Your task to perform on an android device: Set the phone to "Do not disturb". Image 0: 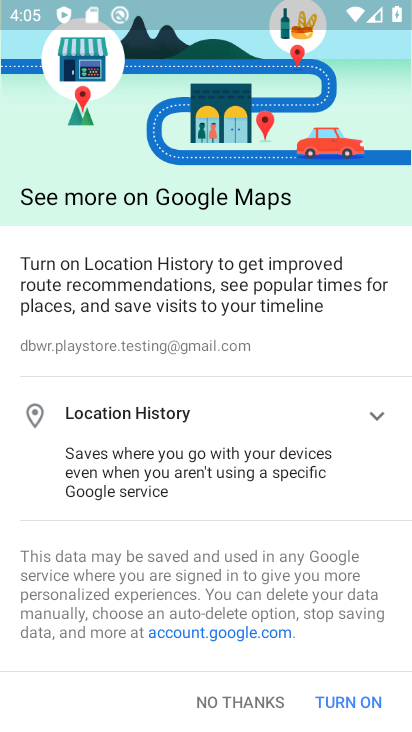
Step 0: click (352, 701)
Your task to perform on an android device: Set the phone to "Do not disturb". Image 1: 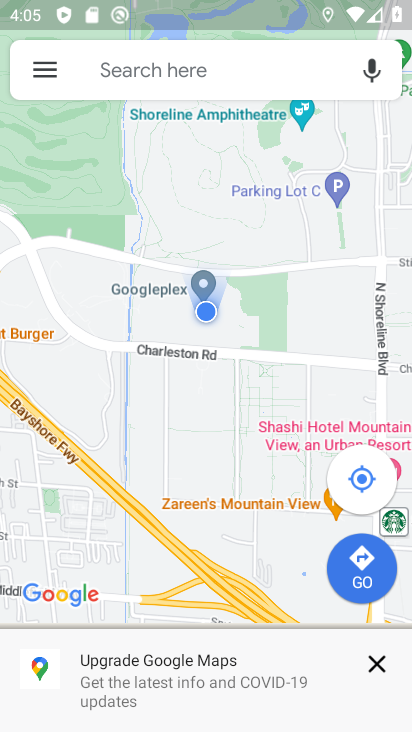
Step 1: press home button
Your task to perform on an android device: Set the phone to "Do not disturb". Image 2: 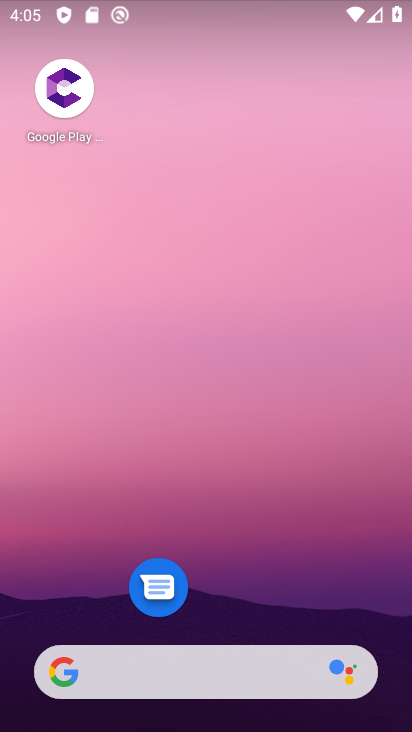
Step 2: drag from (220, 614) to (176, 145)
Your task to perform on an android device: Set the phone to "Do not disturb". Image 3: 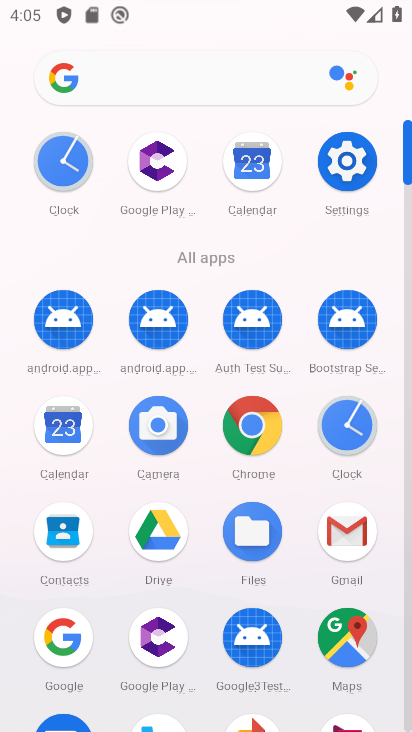
Step 3: click (312, 158)
Your task to perform on an android device: Set the phone to "Do not disturb". Image 4: 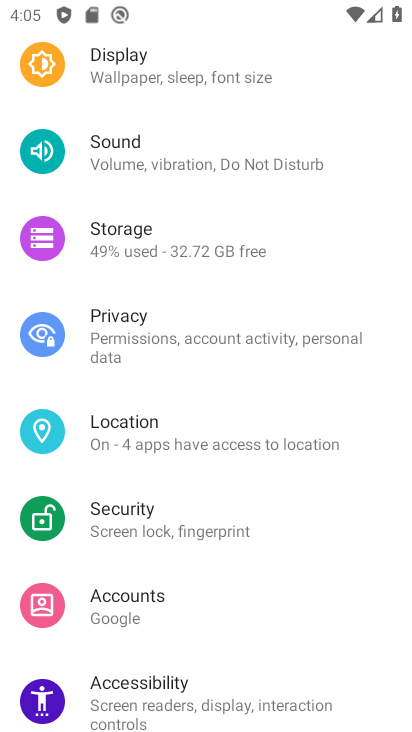
Step 4: click (169, 165)
Your task to perform on an android device: Set the phone to "Do not disturb". Image 5: 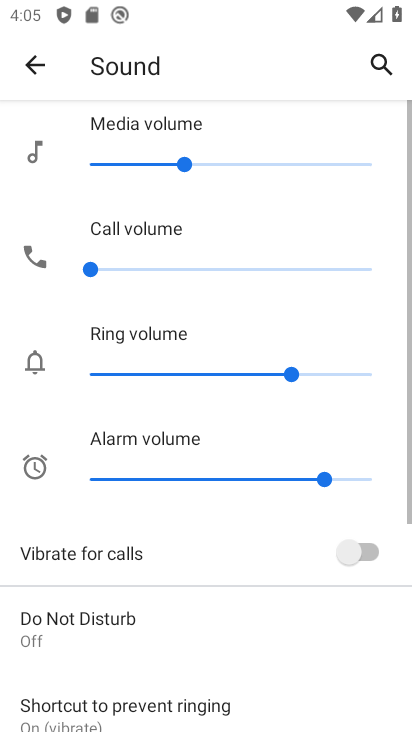
Step 5: drag from (188, 602) to (156, 193)
Your task to perform on an android device: Set the phone to "Do not disturb". Image 6: 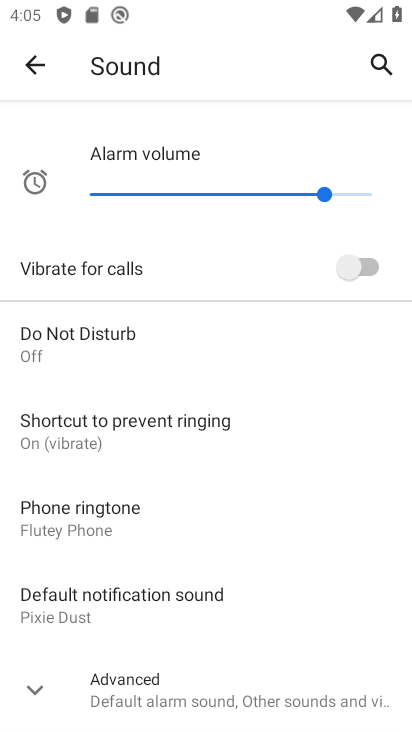
Step 6: click (121, 324)
Your task to perform on an android device: Set the phone to "Do not disturb". Image 7: 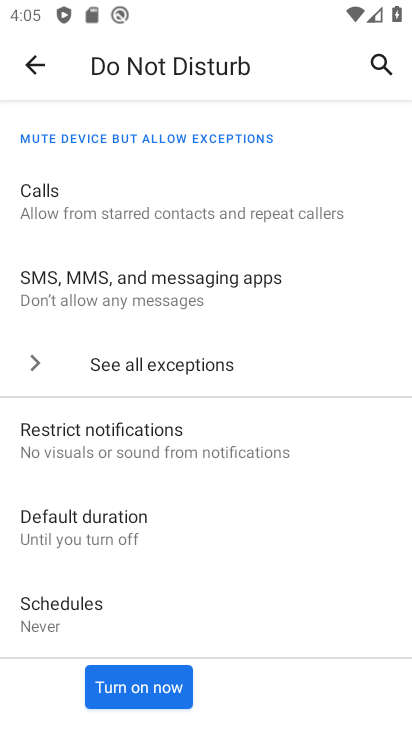
Step 7: drag from (241, 610) to (271, 370)
Your task to perform on an android device: Set the phone to "Do not disturb". Image 8: 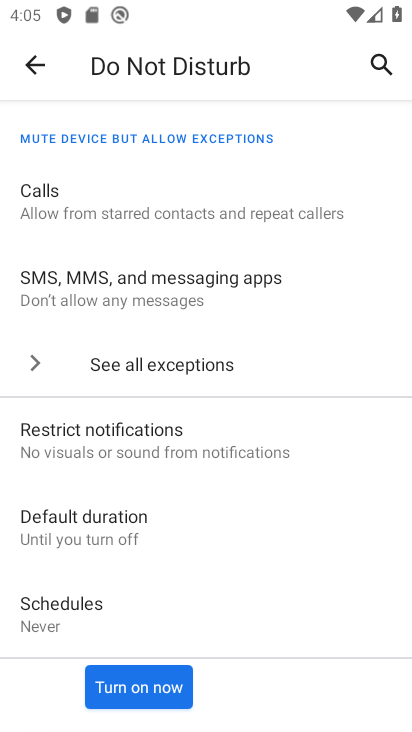
Step 8: click (225, 527)
Your task to perform on an android device: Set the phone to "Do not disturb". Image 9: 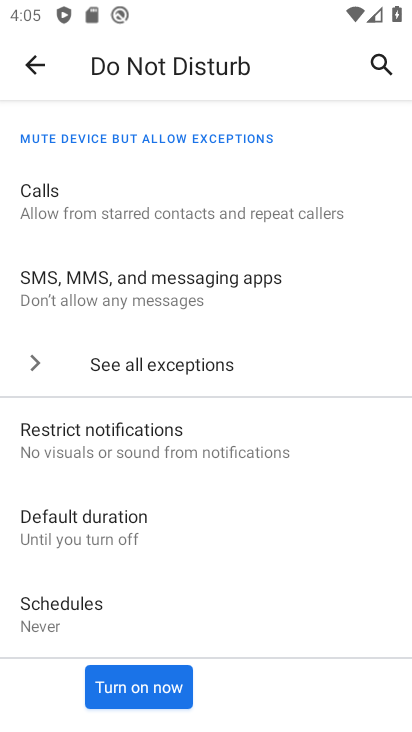
Step 9: click (153, 674)
Your task to perform on an android device: Set the phone to "Do not disturb". Image 10: 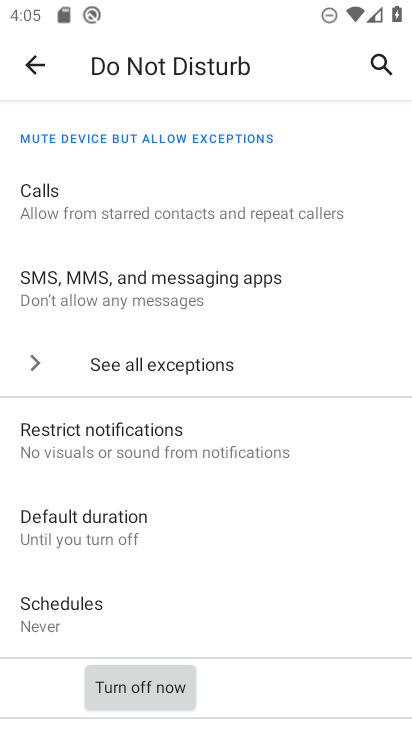
Step 10: task complete